Your task to perform on an android device: open device folders in google photos Image 0: 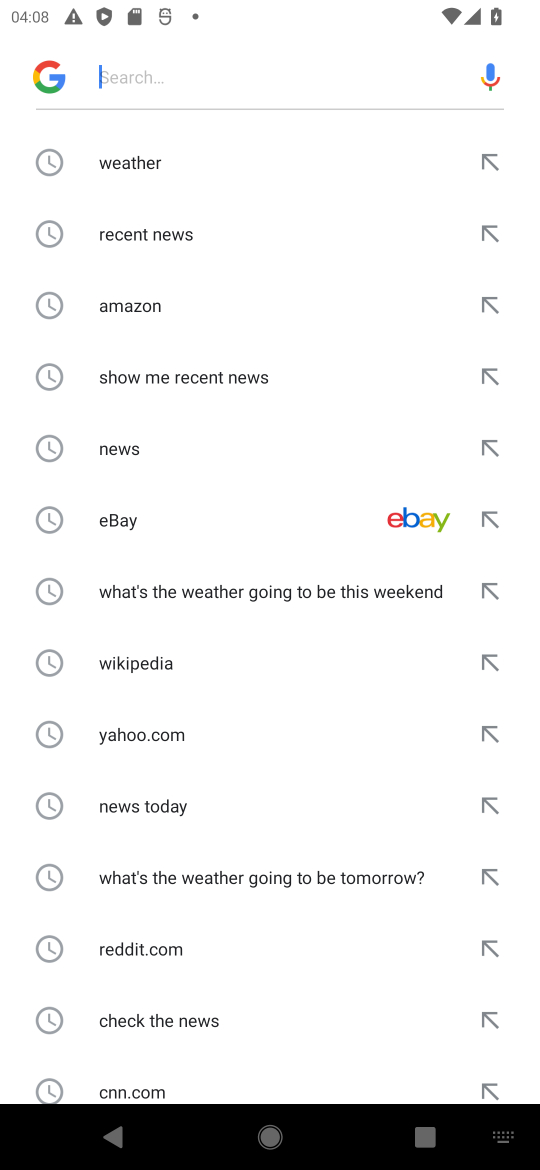
Step 0: press home button
Your task to perform on an android device: open device folders in google photos Image 1: 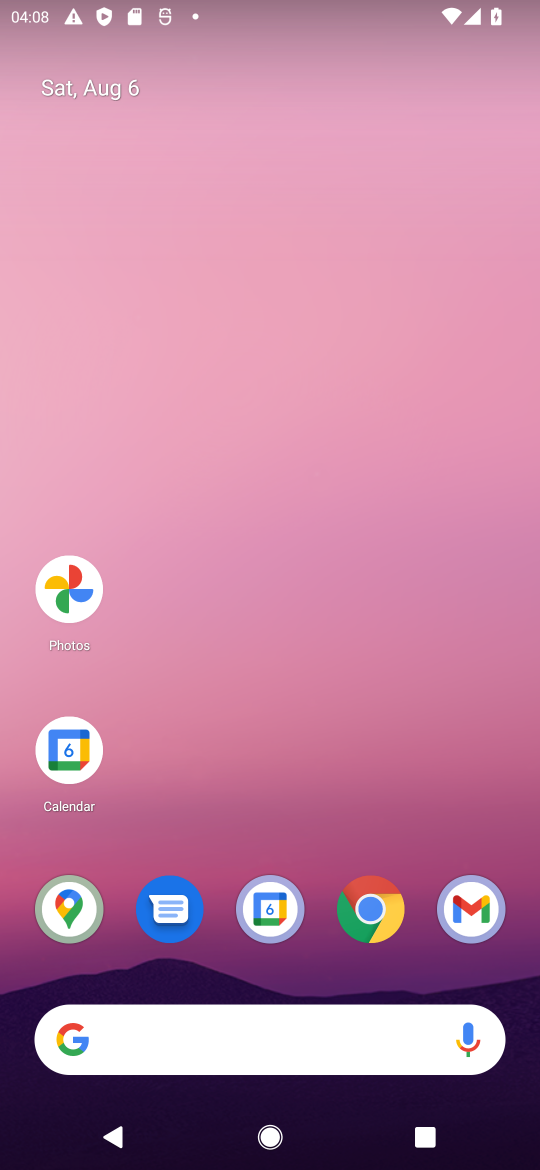
Step 1: click (69, 586)
Your task to perform on an android device: open device folders in google photos Image 2: 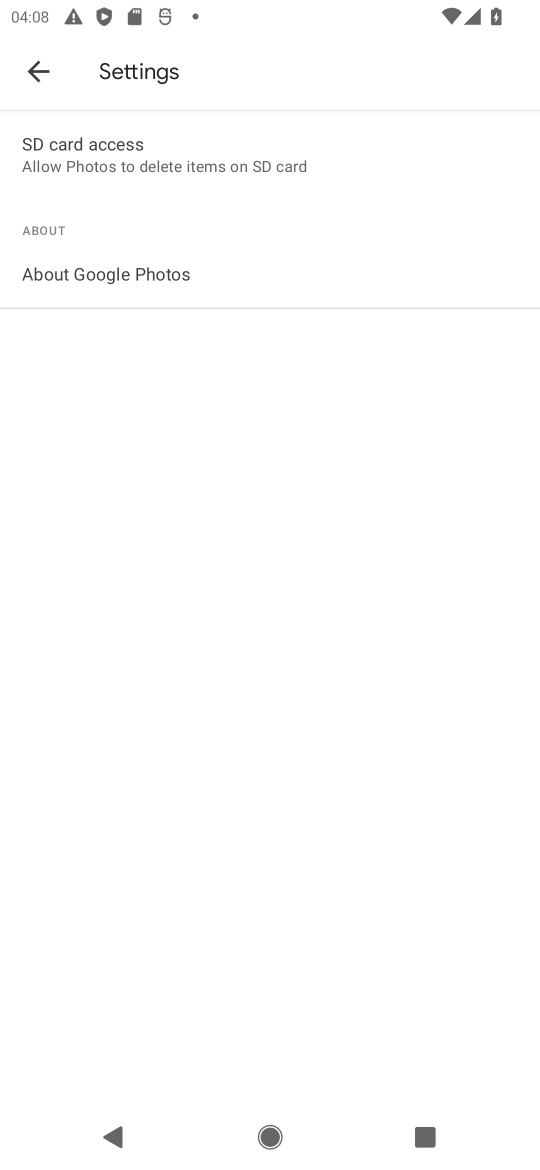
Step 2: click (37, 68)
Your task to perform on an android device: open device folders in google photos Image 3: 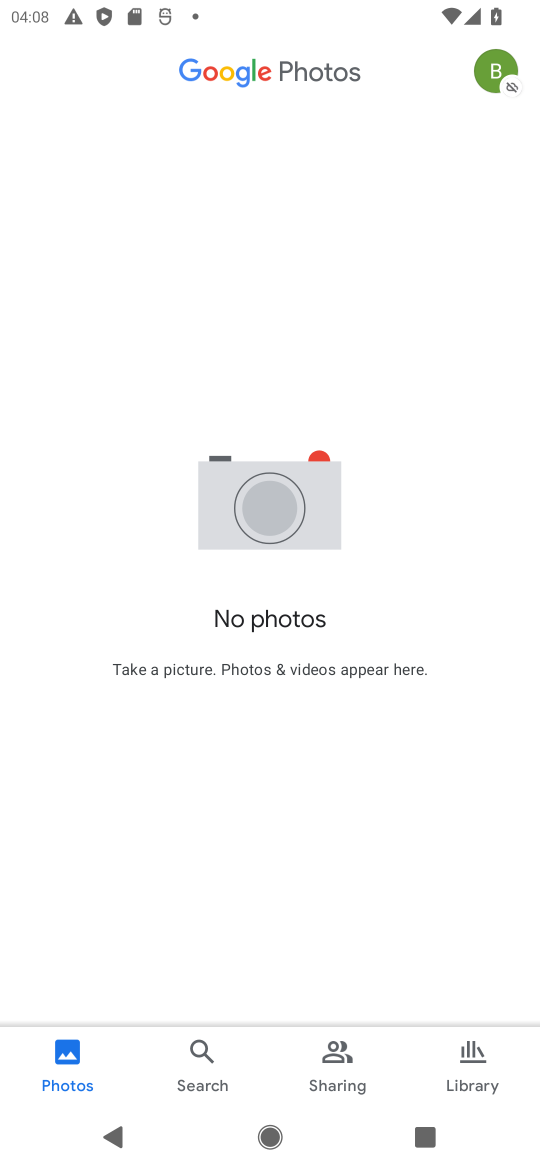
Step 3: click (195, 1056)
Your task to perform on an android device: open device folders in google photos Image 4: 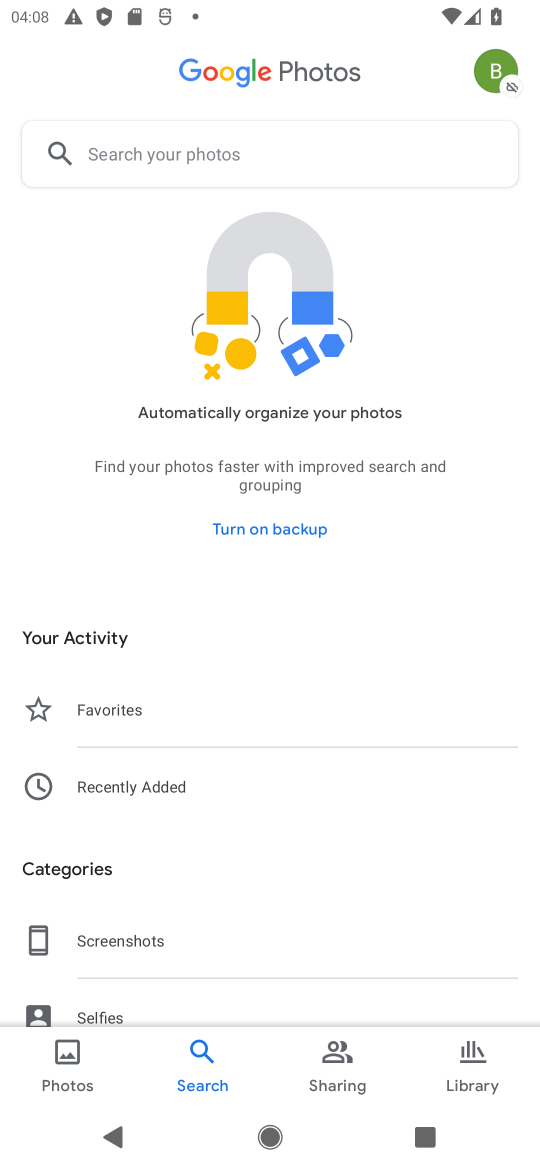
Step 4: click (153, 149)
Your task to perform on an android device: open device folders in google photos Image 5: 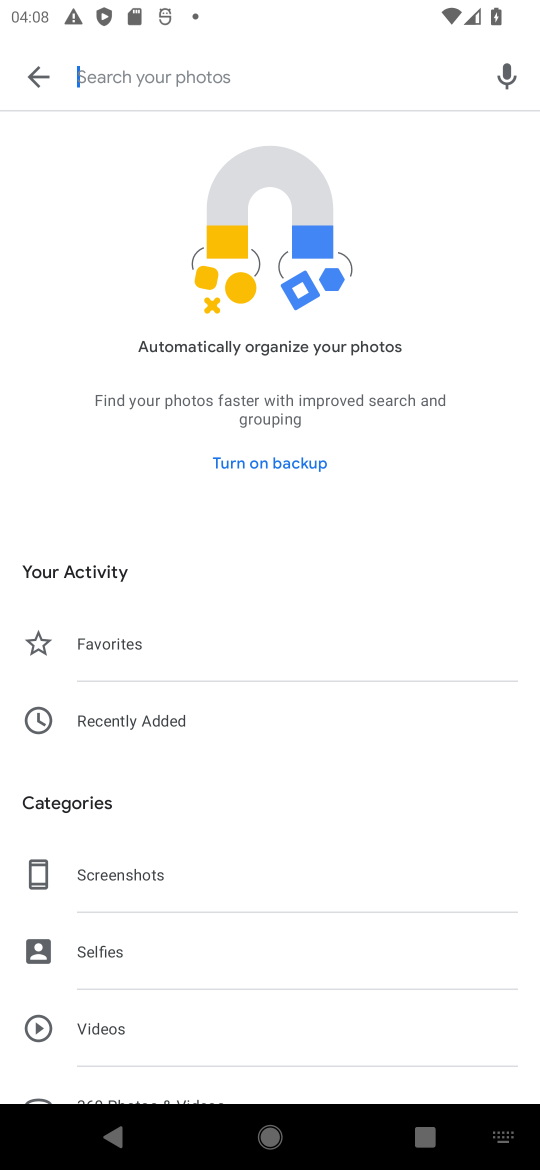
Step 5: type "device"
Your task to perform on an android device: open device folders in google photos Image 6: 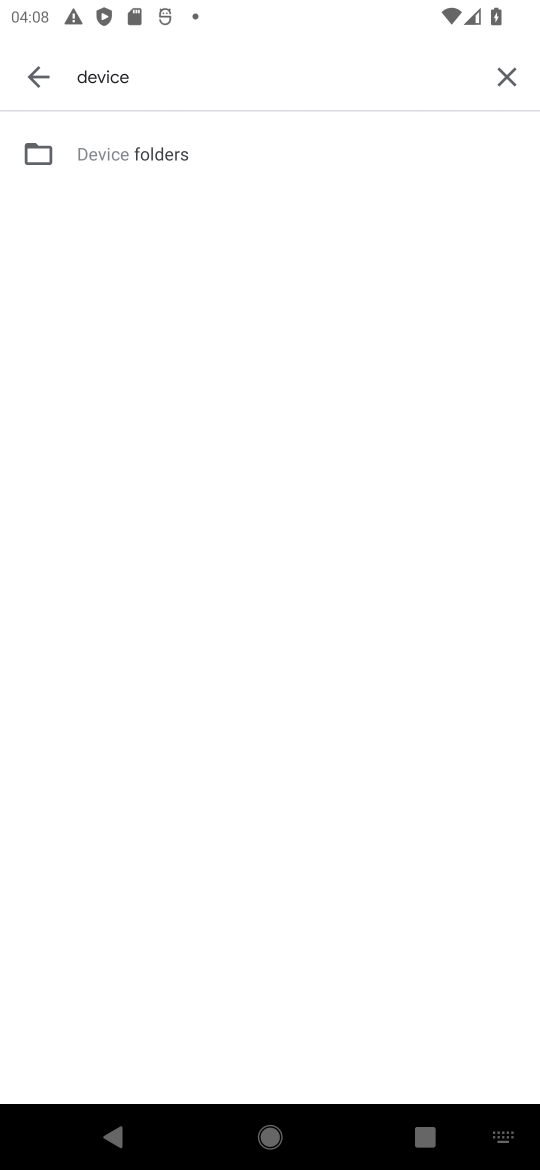
Step 6: click (132, 150)
Your task to perform on an android device: open device folders in google photos Image 7: 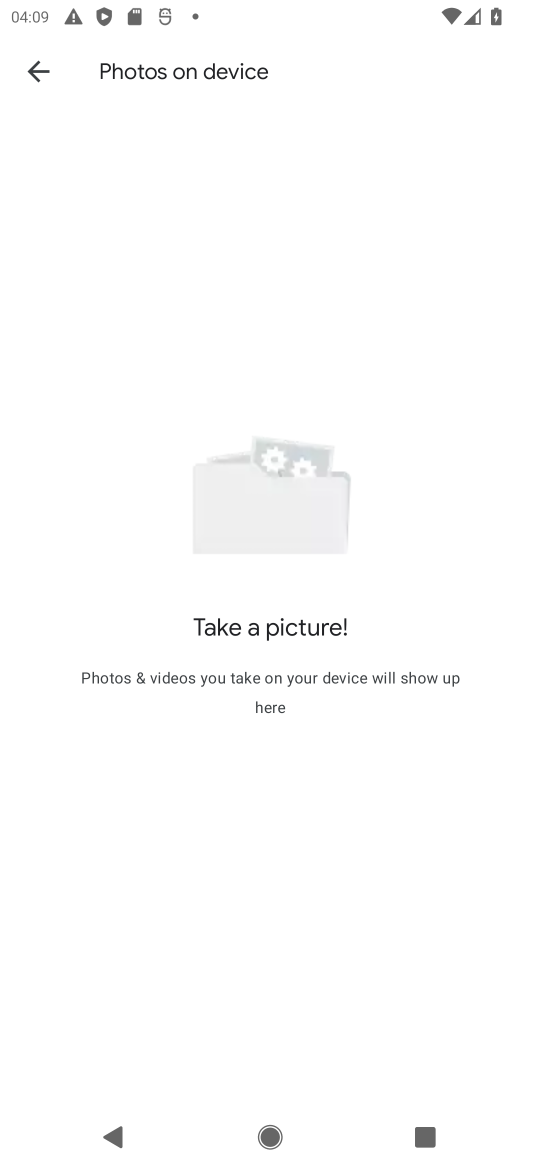
Step 7: task complete